Your task to perform on an android device: turn on airplane mode Image 0: 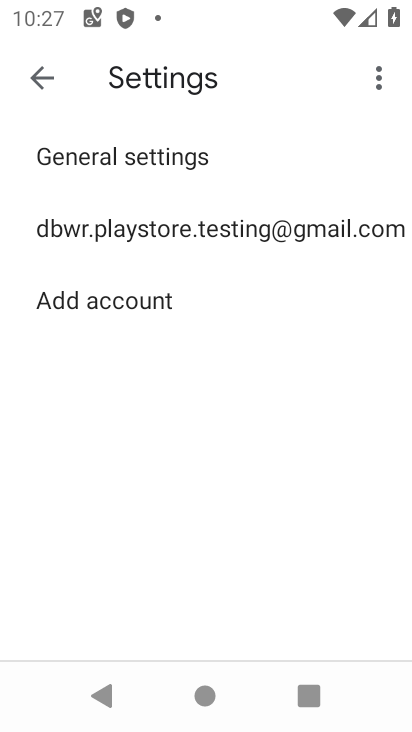
Step 0: press home button
Your task to perform on an android device: turn on airplane mode Image 1: 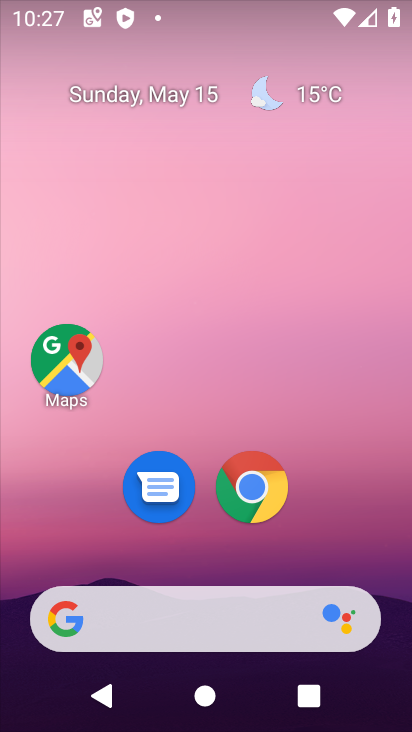
Step 1: drag from (398, 580) to (340, 89)
Your task to perform on an android device: turn on airplane mode Image 2: 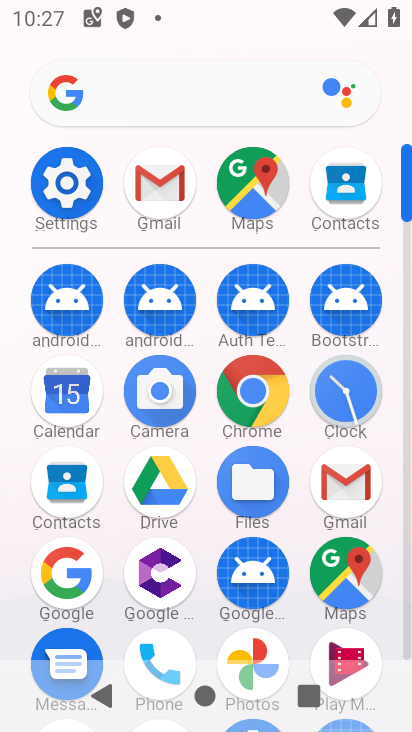
Step 2: click (406, 646)
Your task to perform on an android device: turn on airplane mode Image 3: 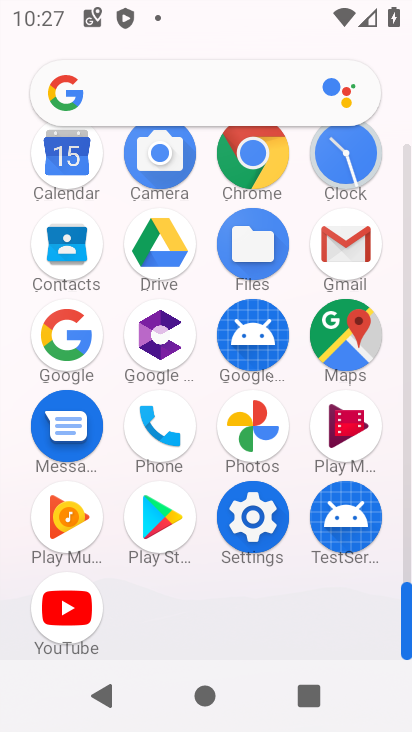
Step 3: click (254, 515)
Your task to perform on an android device: turn on airplane mode Image 4: 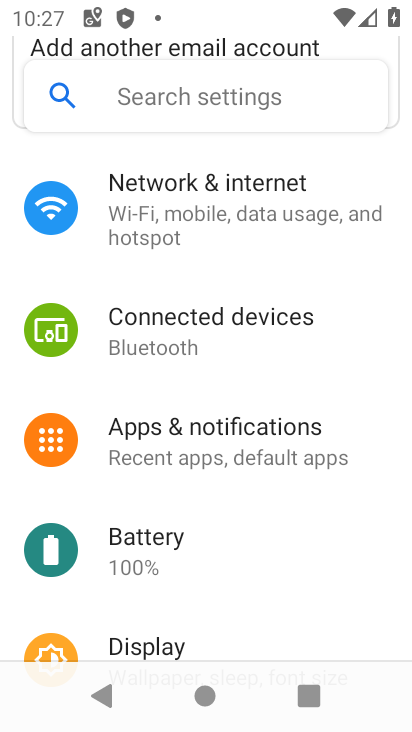
Step 4: click (154, 196)
Your task to perform on an android device: turn on airplane mode Image 5: 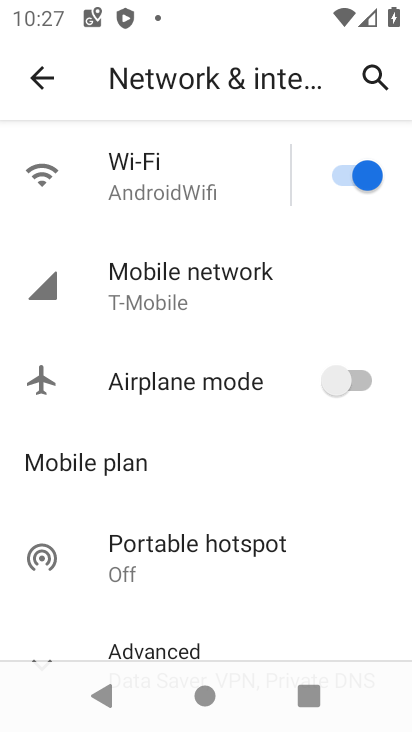
Step 5: click (357, 378)
Your task to perform on an android device: turn on airplane mode Image 6: 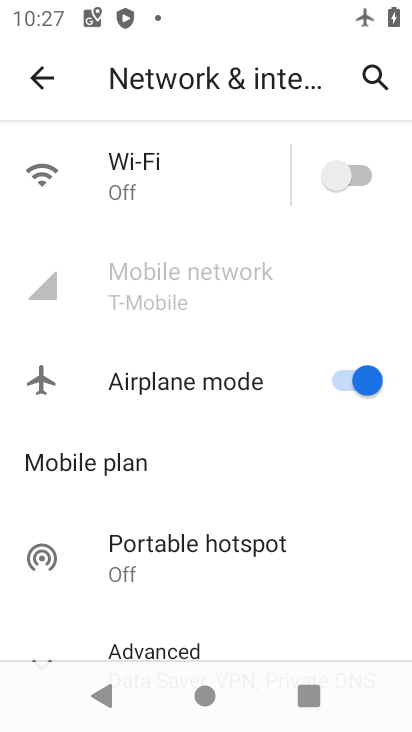
Step 6: task complete